Your task to perform on an android device: add a contact Image 0: 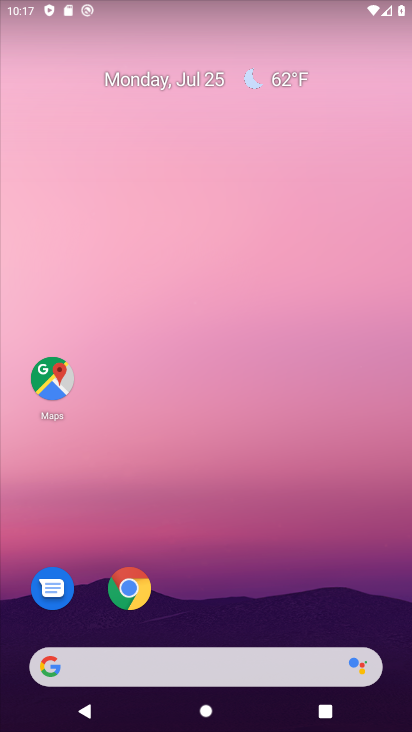
Step 0: drag from (225, 129) to (226, 31)
Your task to perform on an android device: add a contact Image 1: 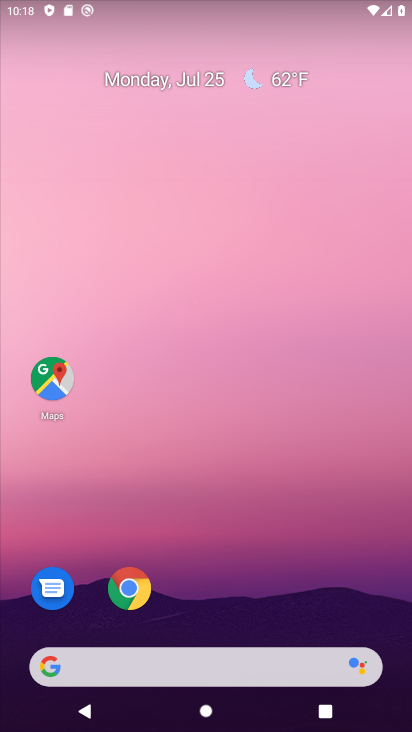
Step 1: drag from (214, 595) to (213, 94)
Your task to perform on an android device: add a contact Image 2: 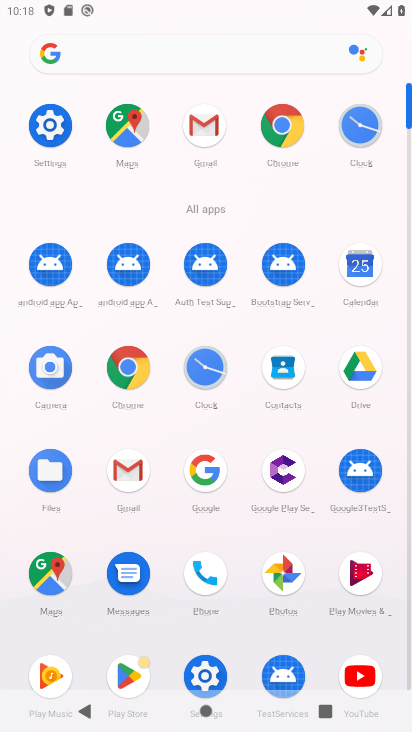
Step 2: click (274, 381)
Your task to perform on an android device: add a contact Image 3: 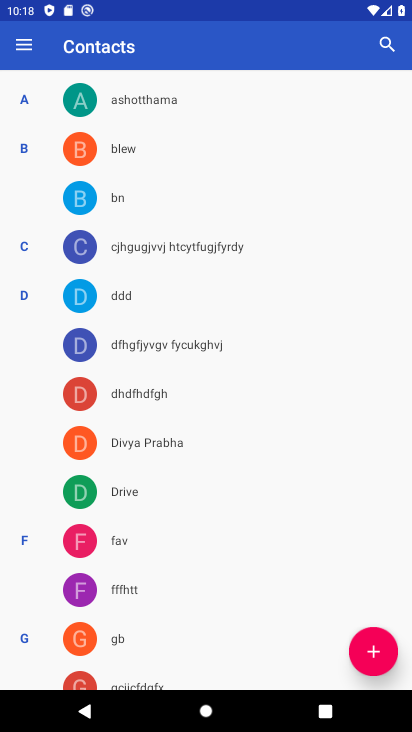
Step 3: click (388, 656)
Your task to perform on an android device: add a contact Image 4: 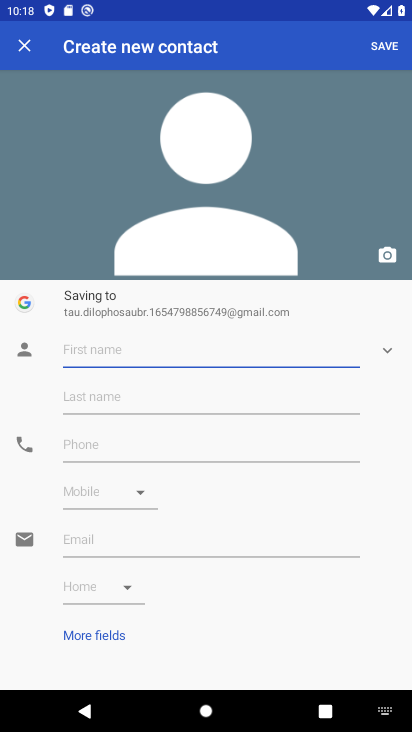
Step 4: type "rfsgrshd"
Your task to perform on an android device: add a contact Image 5: 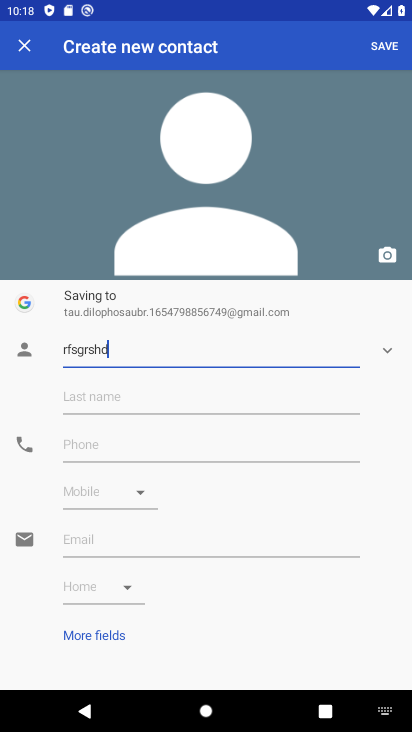
Step 5: type ""
Your task to perform on an android device: add a contact Image 6: 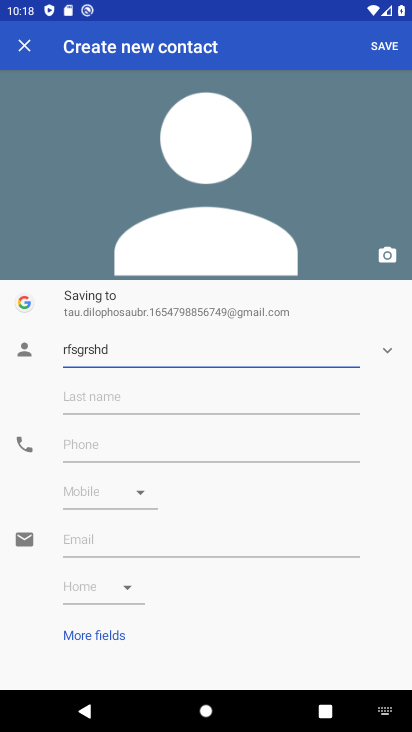
Step 6: click (389, 44)
Your task to perform on an android device: add a contact Image 7: 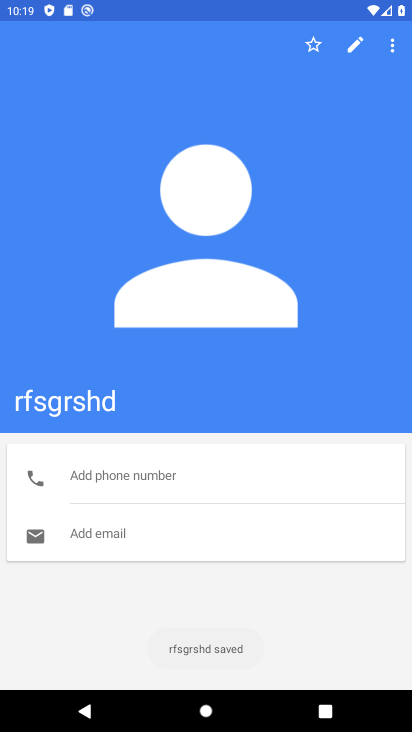
Step 7: task complete